Your task to perform on an android device: move an email to a new category in the gmail app Image 0: 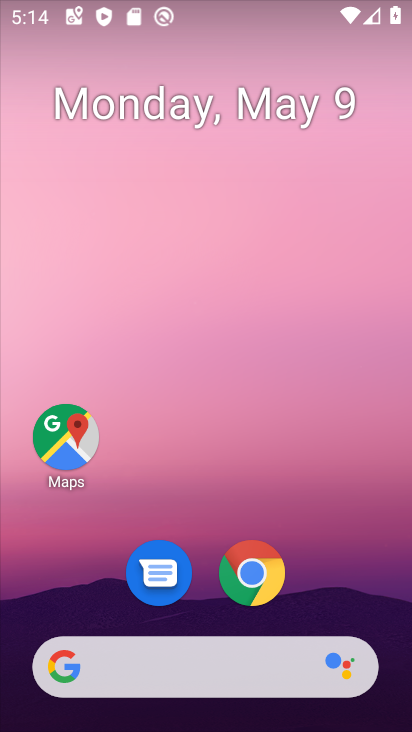
Step 0: drag from (308, 589) to (253, 57)
Your task to perform on an android device: move an email to a new category in the gmail app Image 1: 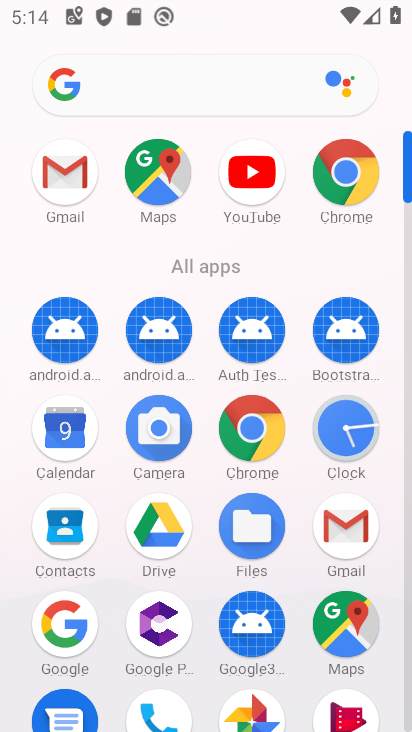
Step 1: click (356, 537)
Your task to perform on an android device: move an email to a new category in the gmail app Image 2: 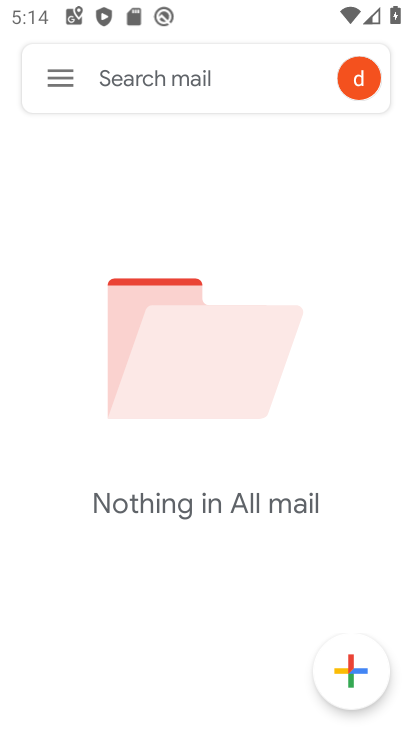
Step 2: click (190, 83)
Your task to perform on an android device: move an email to a new category in the gmail app Image 3: 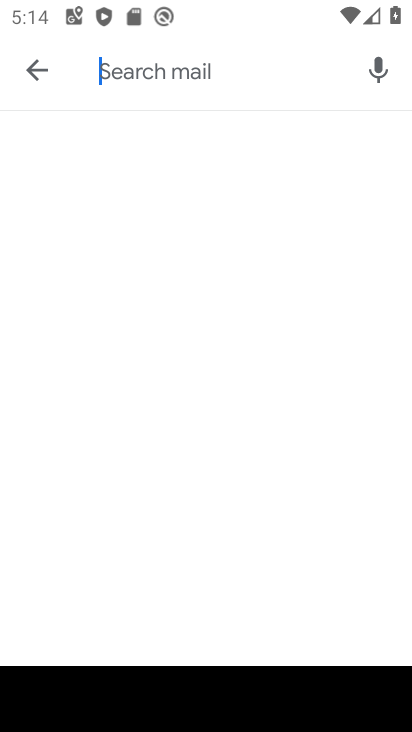
Step 3: click (27, 72)
Your task to perform on an android device: move an email to a new category in the gmail app Image 4: 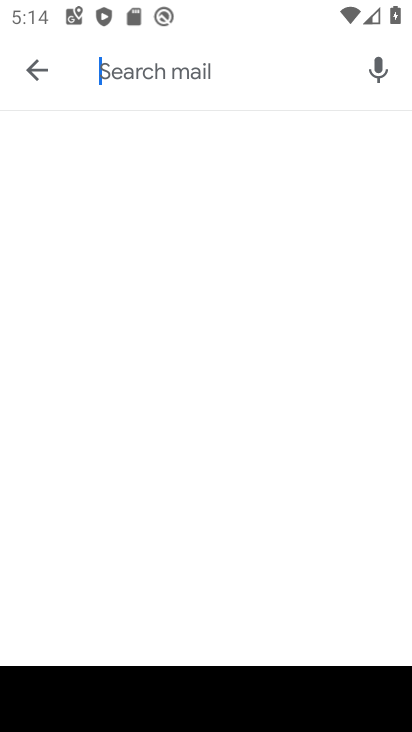
Step 4: click (33, 64)
Your task to perform on an android device: move an email to a new category in the gmail app Image 5: 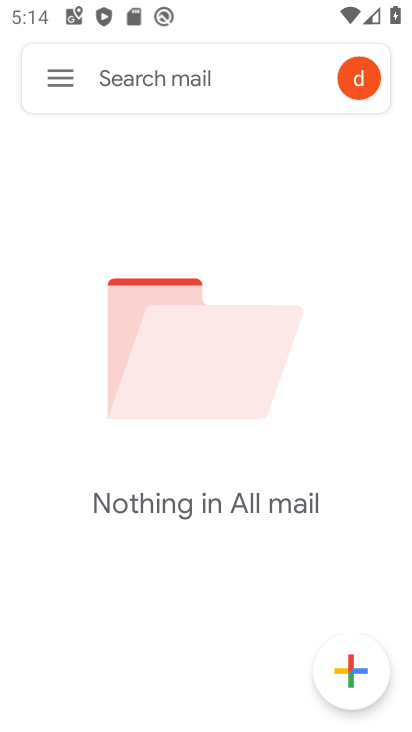
Step 5: click (57, 88)
Your task to perform on an android device: move an email to a new category in the gmail app Image 6: 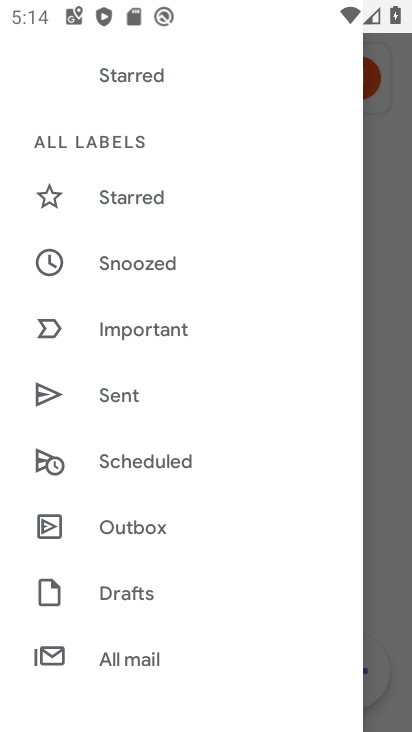
Step 6: click (125, 661)
Your task to perform on an android device: move an email to a new category in the gmail app Image 7: 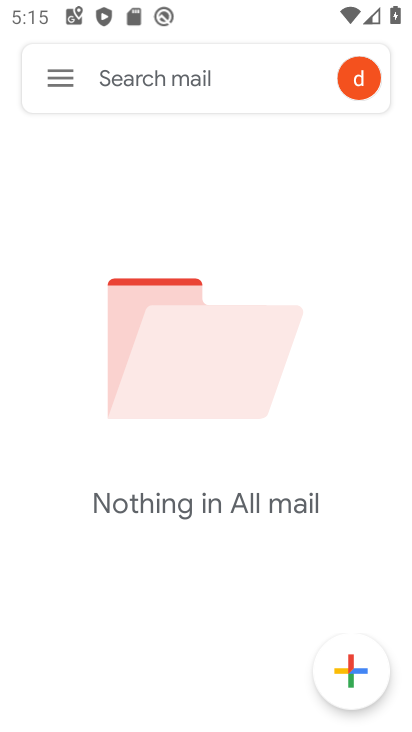
Step 7: task complete